Your task to perform on an android device: Set the phone to "Do not disturb". Image 0: 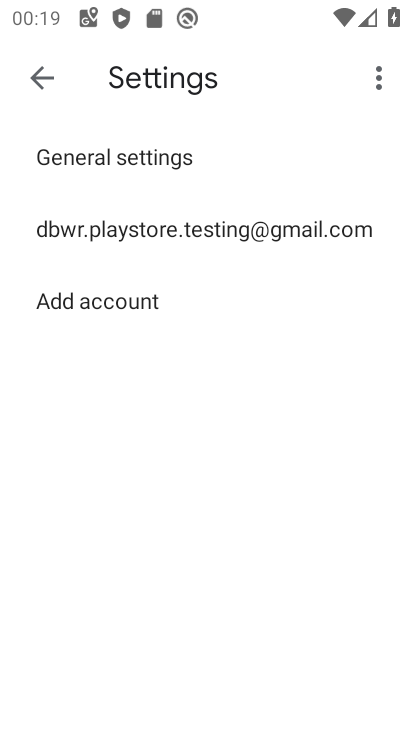
Step 0: press home button
Your task to perform on an android device: Set the phone to "Do not disturb". Image 1: 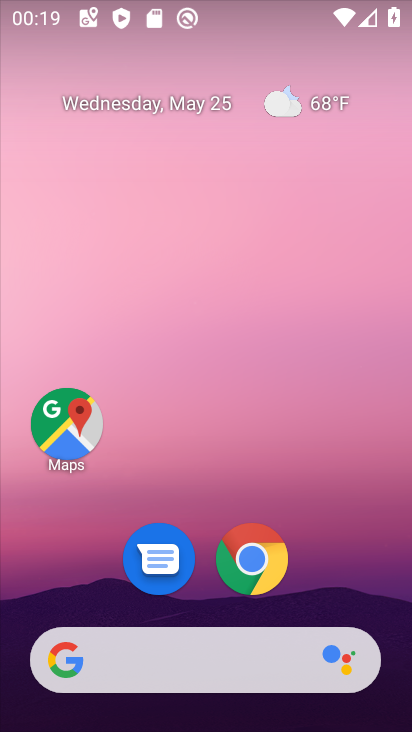
Step 1: drag from (385, 602) to (317, 155)
Your task to perform on an android device: Set the phone to "Do not disturb". Image 2: 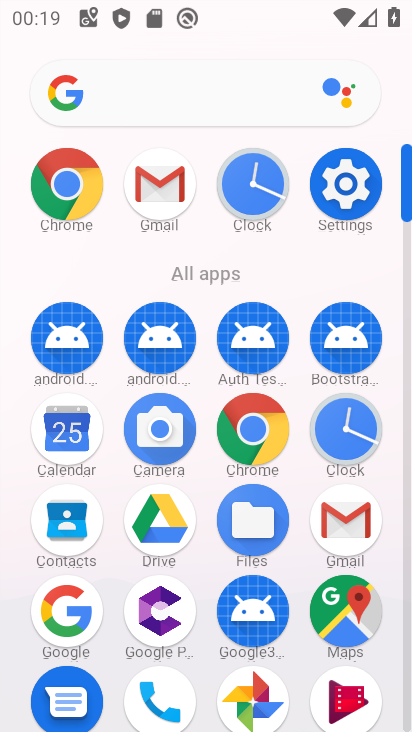
Step 2: click (408, 720)
Your task to perform on an android device: Set the phone to "Do not disturb". Image 3: 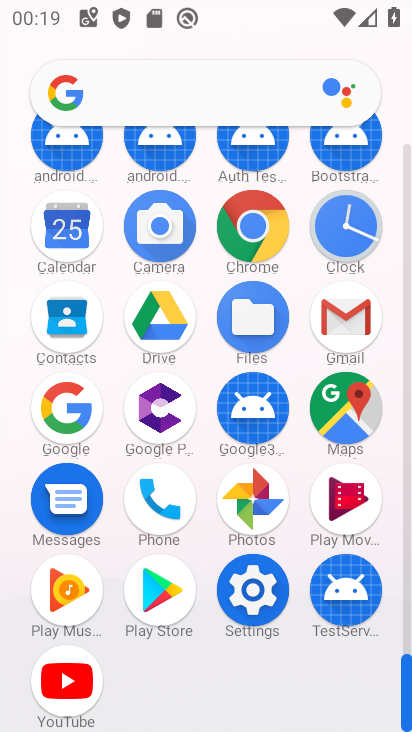
Step 3: click (255, 588)
Your task to perform on an android device: Set the phone to "Do not disturb". Image 4: 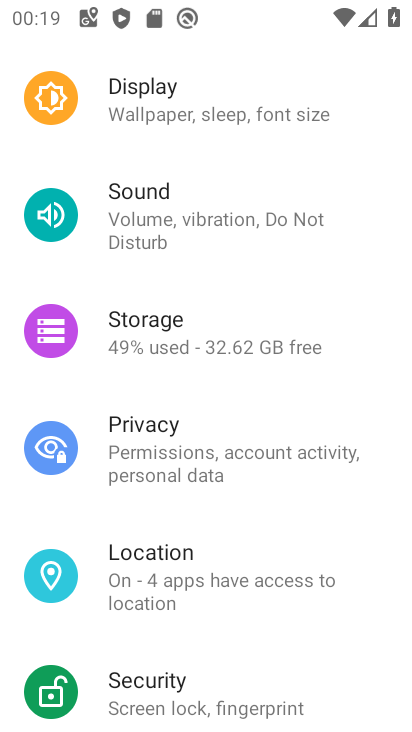
Step 4: click (155, 220)
Your task to perform on an android device: Set the phone to "Do not disturb". Image 5: 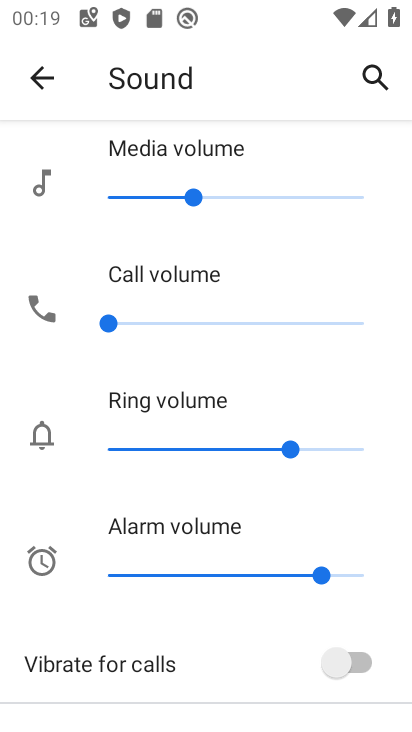
Step 5: drag from (248, 629) to (225, 203)
Your task to perform on an android device: Set the phone to "Do not disturb". Image 6: 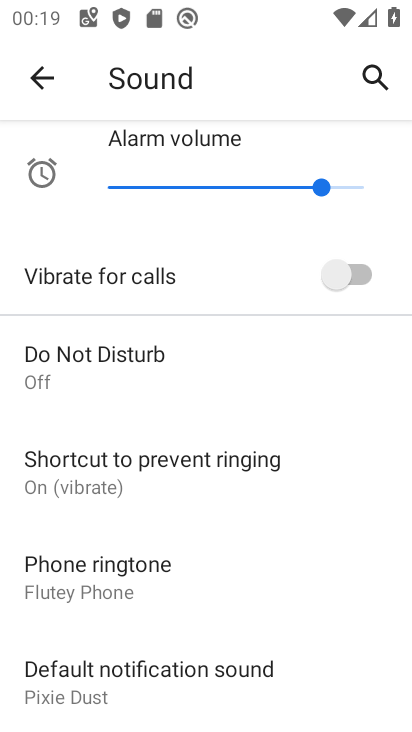
Step 6: click (55, 360)
Your task to perform on an android device: Set the phone to "Do not disturb". Image 7: 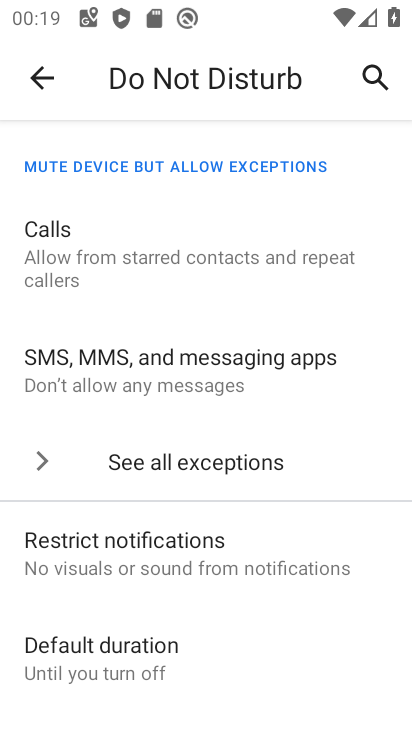
Step 7: drag from (207, 605) to (195, 231)
Your task to perform on an android device: Set the phone to "Do not disturb". Image 8: 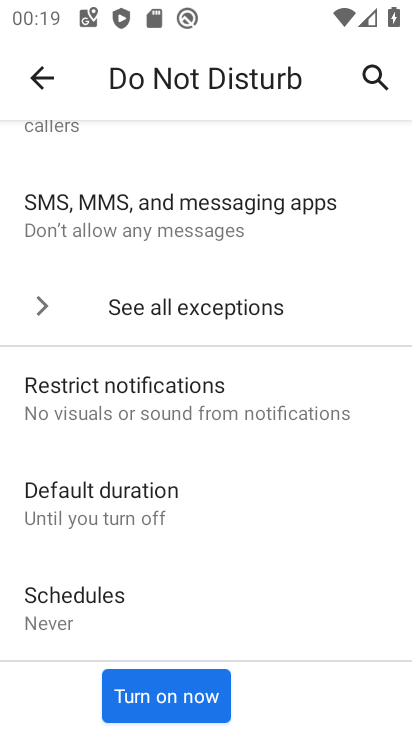
Step 8: click (166, 699)
Your task to perform on an android device: Set the phone to "Do not disturb". Image 9: 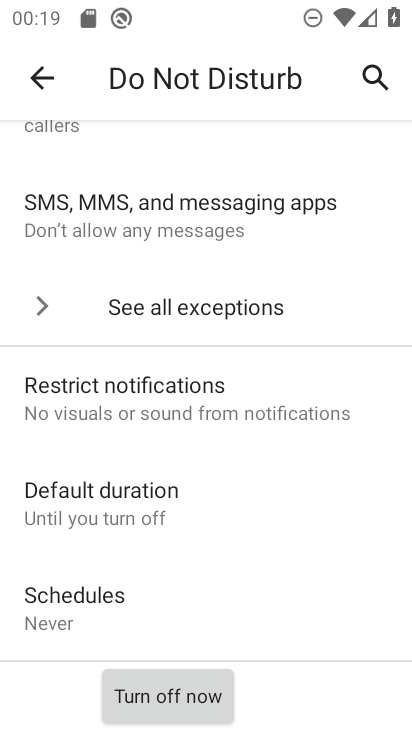
Step 9: task complete